Your task to perform on an android device: open a new tab in the chrome app Image 0: 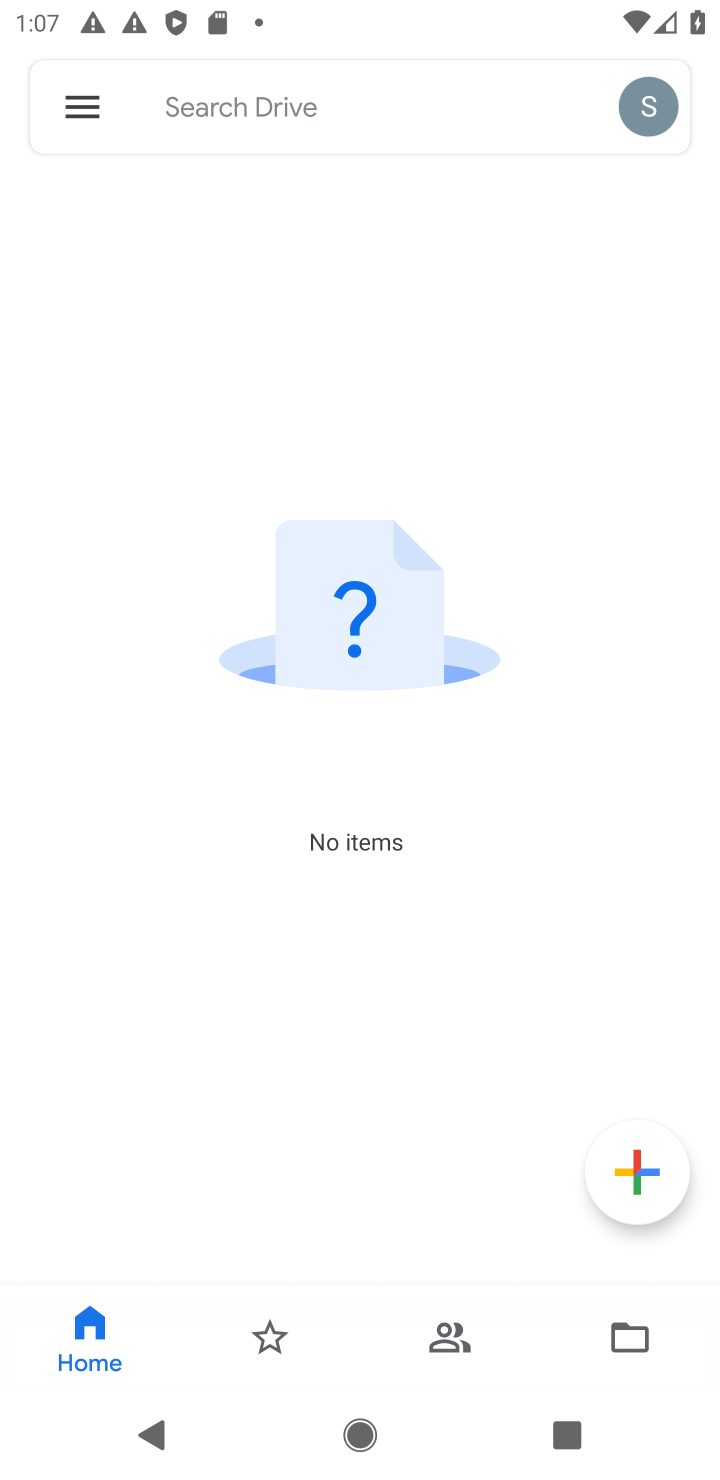
Step 0: press back button
Your task to perform on an android device: open a new tab in the chrome app Image 1: 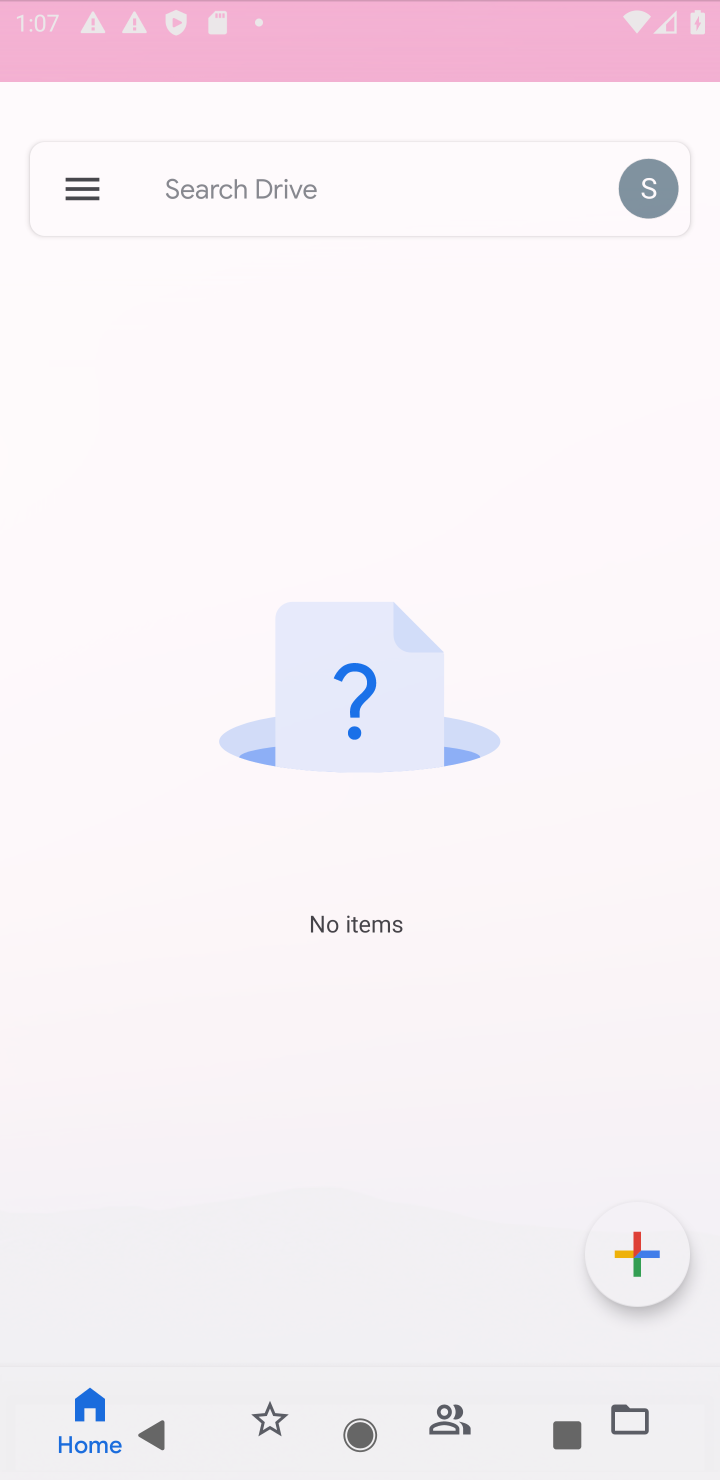
Step 1: press back button
Your task to perform on an android device: open a new tab in the chrome app Image 2: 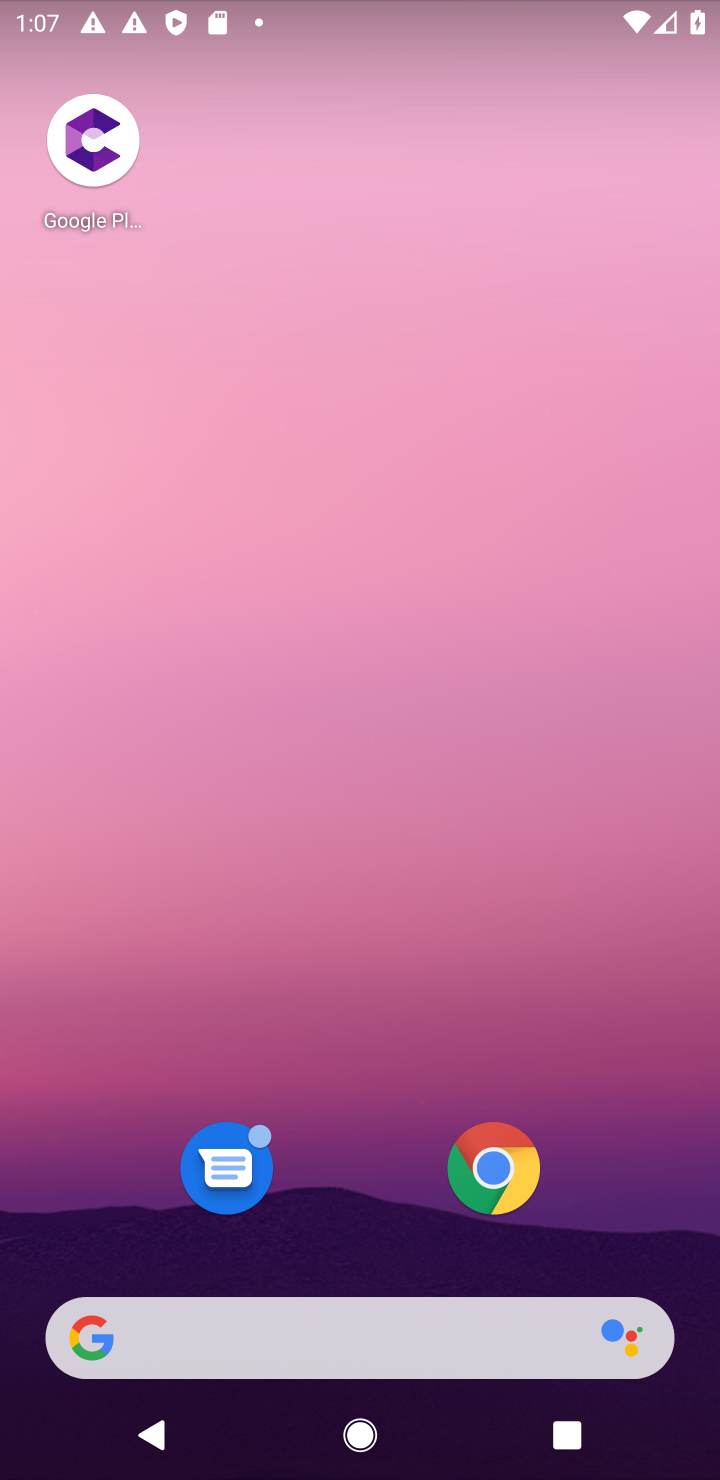
Step 2: press back button
Your task to perform on an android device: open a new tab in the chrome app Image 3: 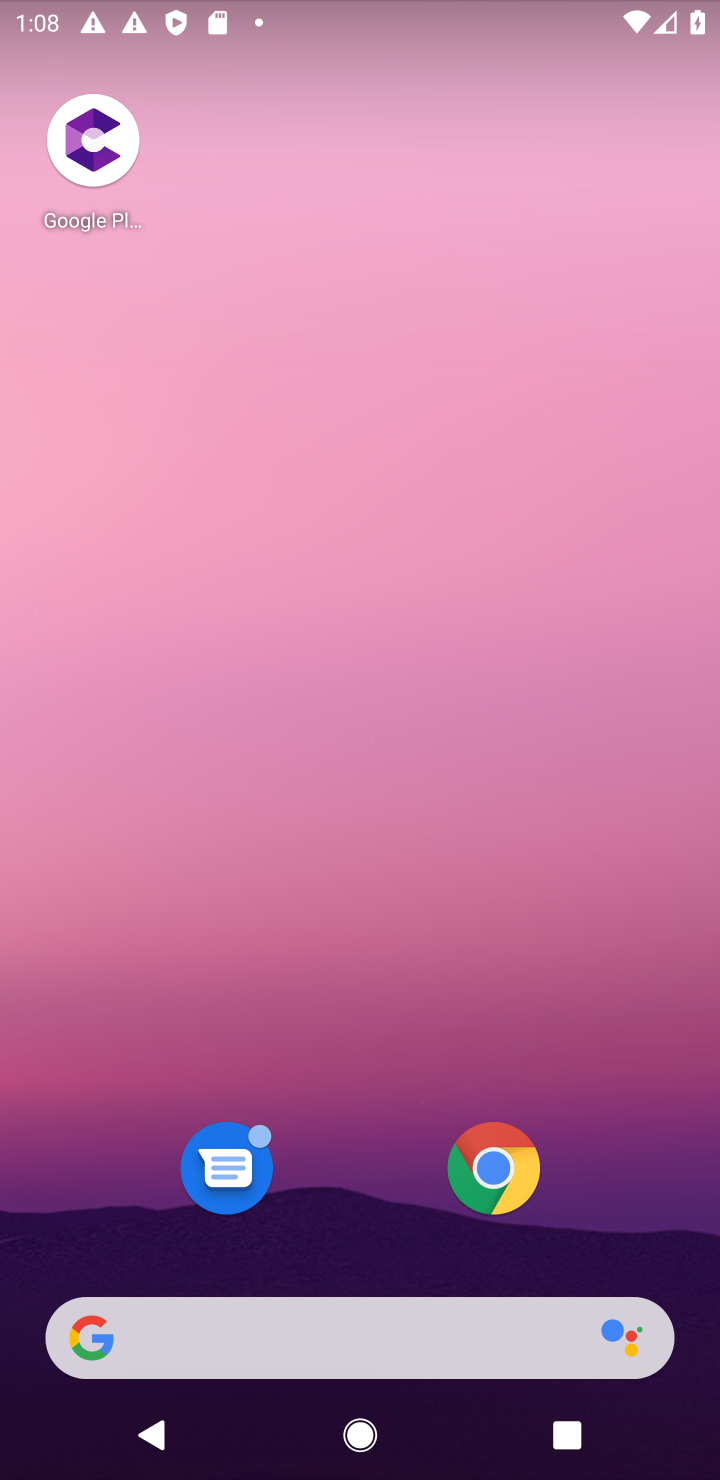
Step 3: click (486, 1191)
Your task to perform on an android device: open a new tab in the chrome app Image 4: 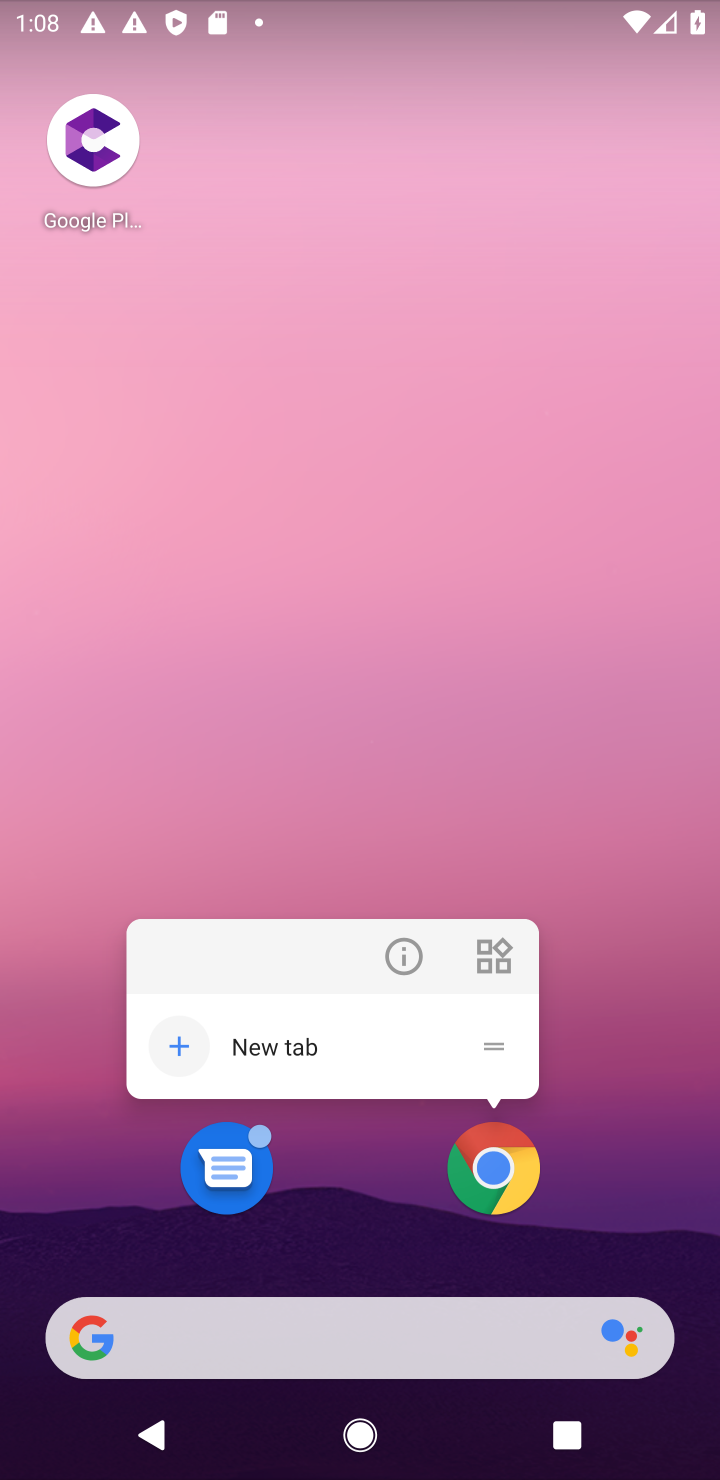
Step 4: click (485, 1184)
Your task to perform on an android device: open a new tab in the chrome app Image 5: 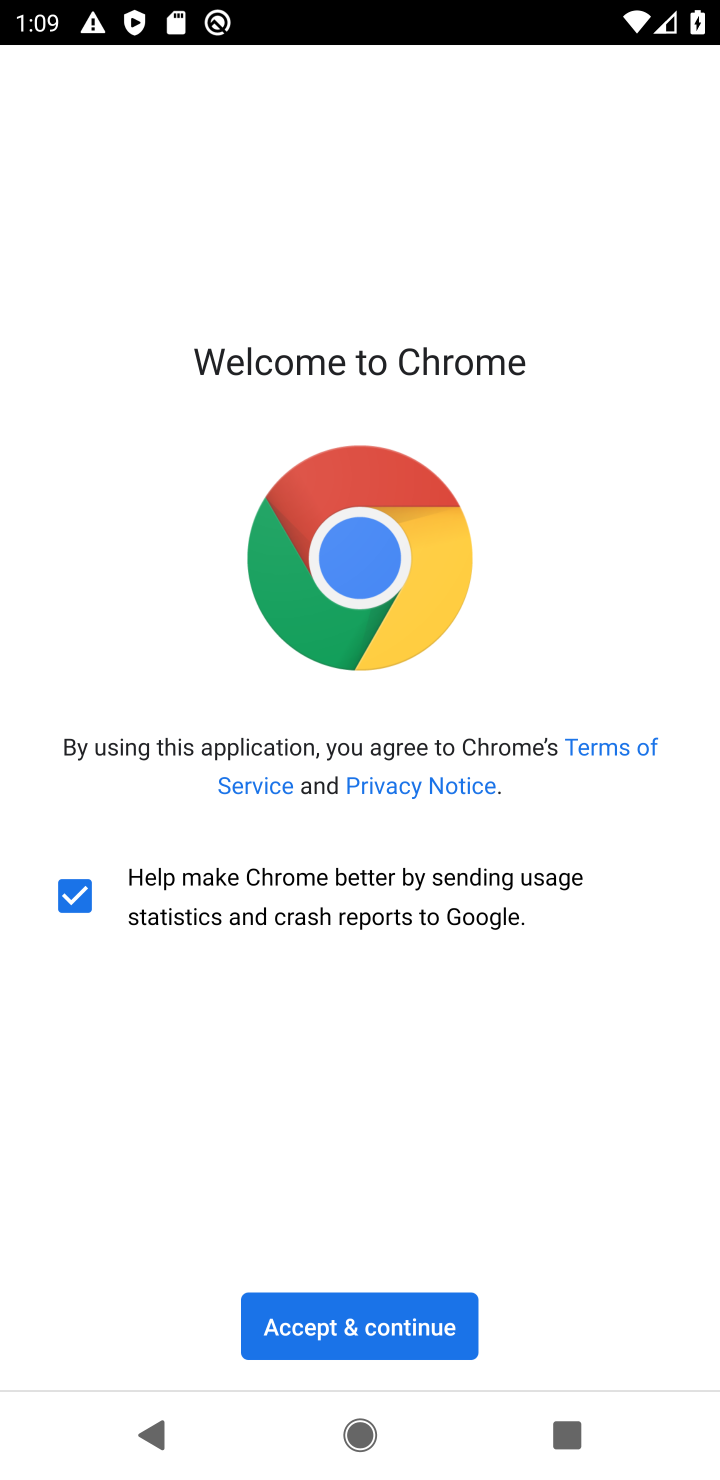
Step 5: click (344, 1314)
Your task to perform on an android device: open a new tab in the chrome app Image 6: 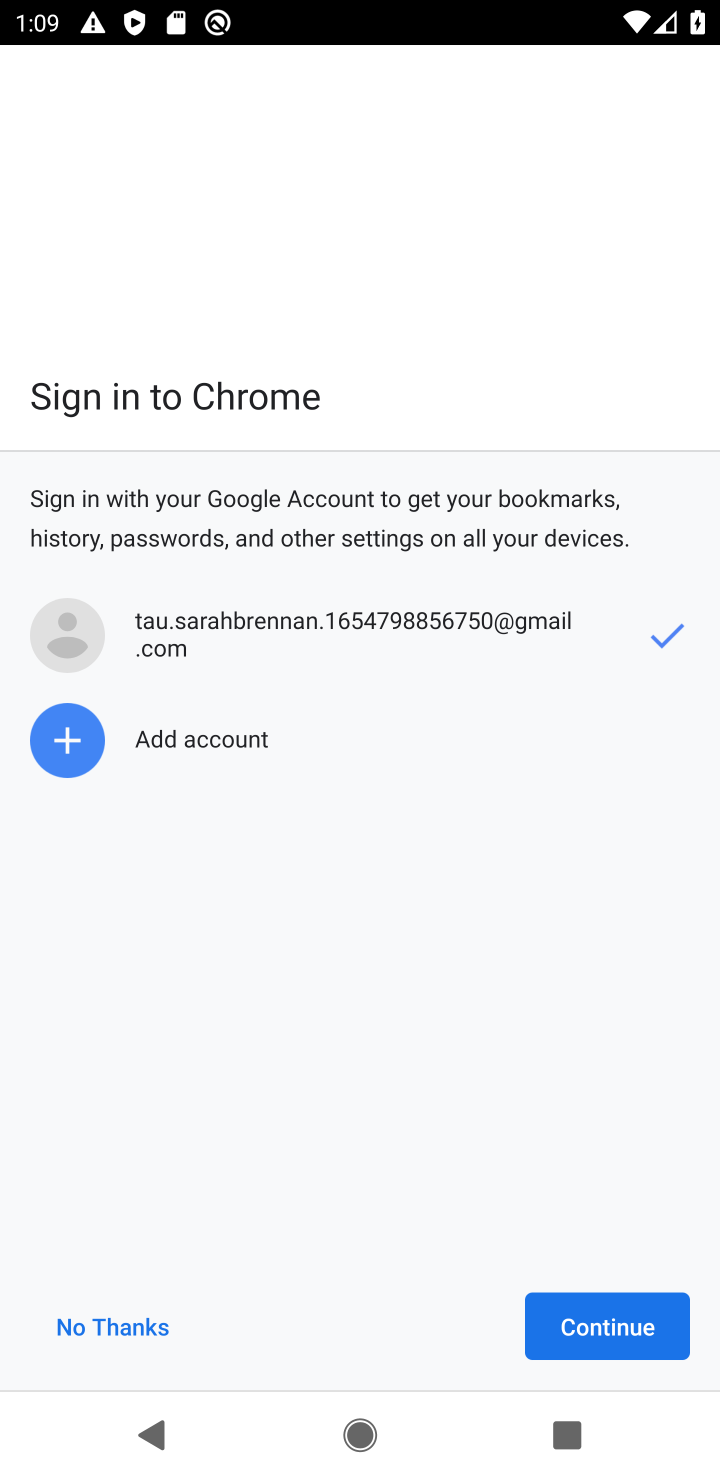
Step 6: click (612, 1348)
Your task to perform on an android device: open a new tab in the chrome app Image 7: 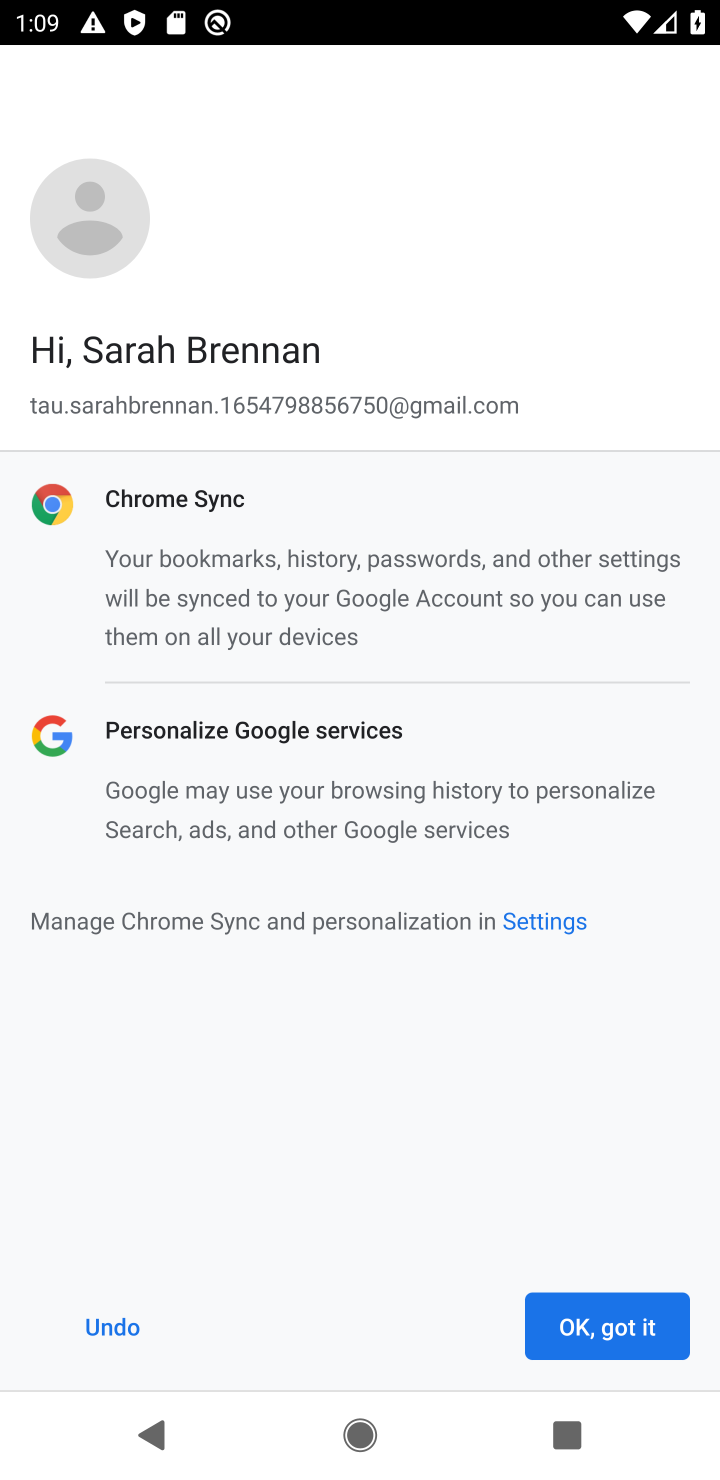
Step 7: click (591, 1346)
Your task to perform on an android device: open a new tab in the chrome app Image 8: 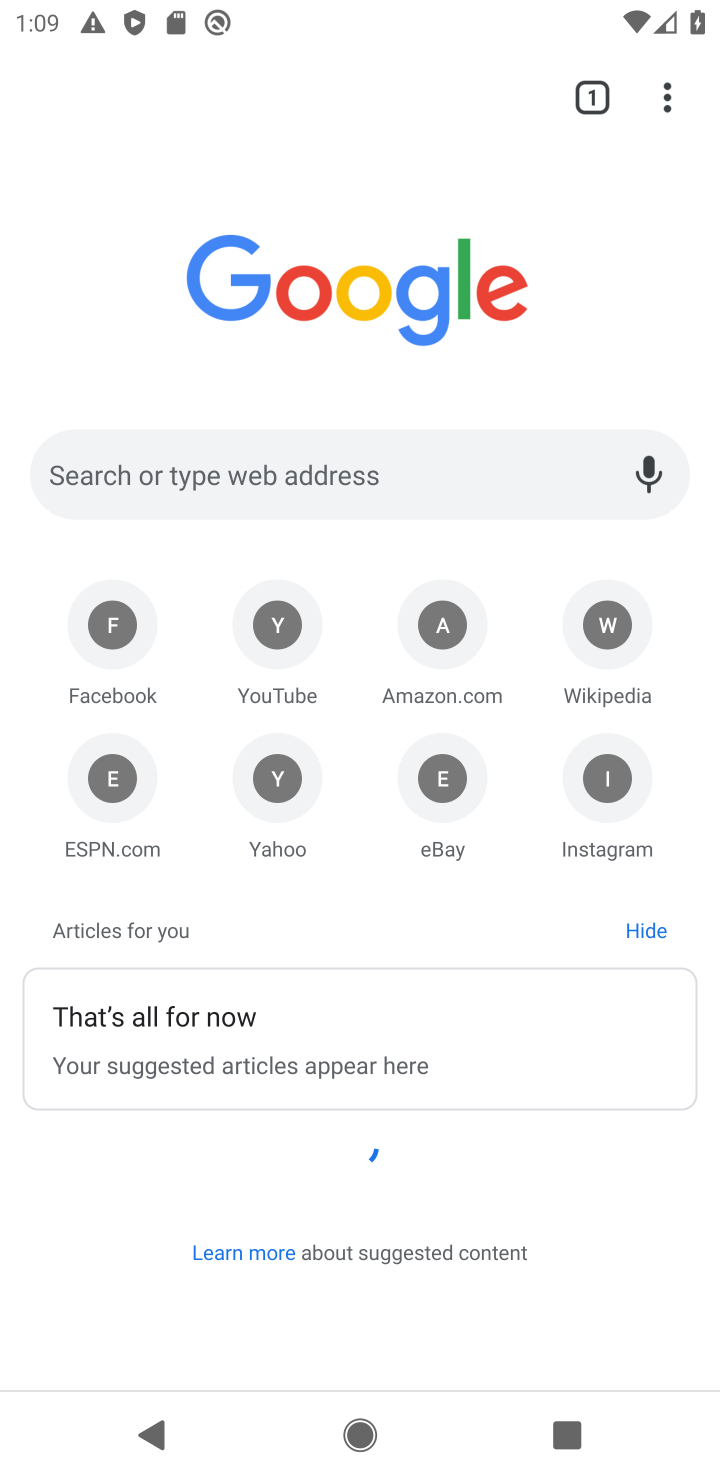
Step 8: task complete